Your task to perform on an android device: check the backup settings in the google photos Image 0: 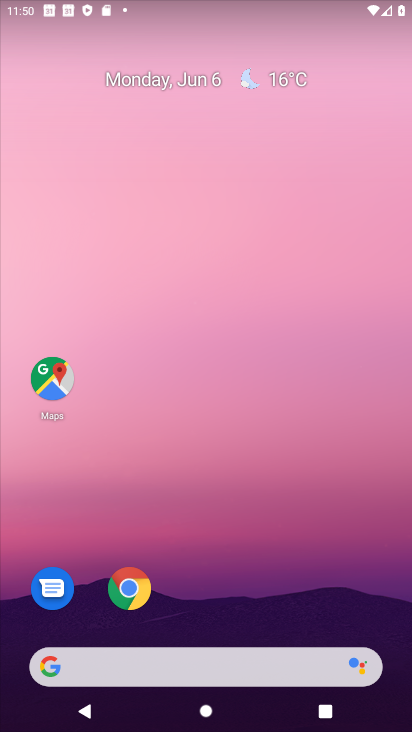
Step 0: drag from (257, 567) to (148, 24)
Your task to perform on an android device: check the backup settings in the google photos Image 1: 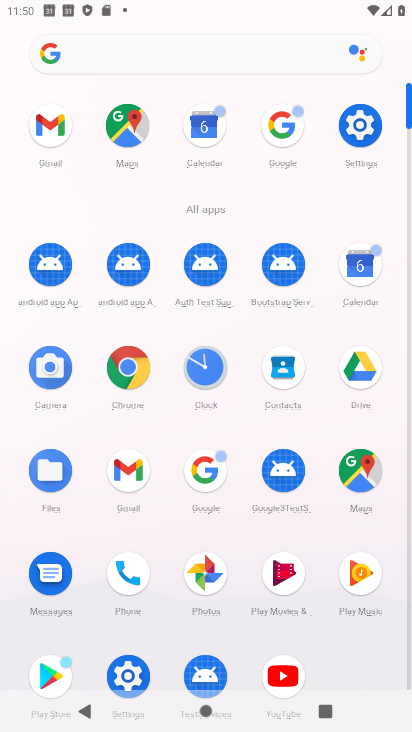
Step 1: click (205, 573)
Your task to perform on an android device: check the backup settings in the google photos Image 2: 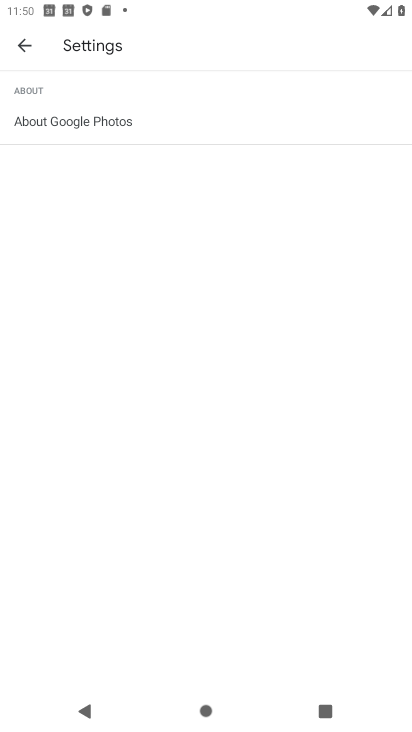
Step 2: click (23, 49)
Your task to perform on an android device: check the backup settings in the google photos Image 3: 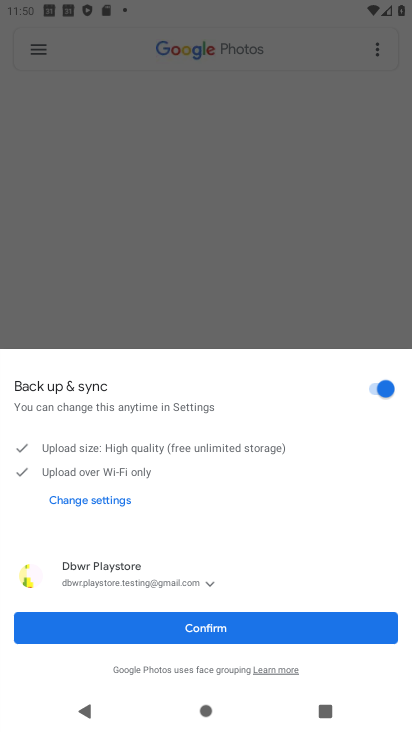
Step 3: click (206, 629)
Your task to perform on an android device: check the backup settings in the google photos Image 4: 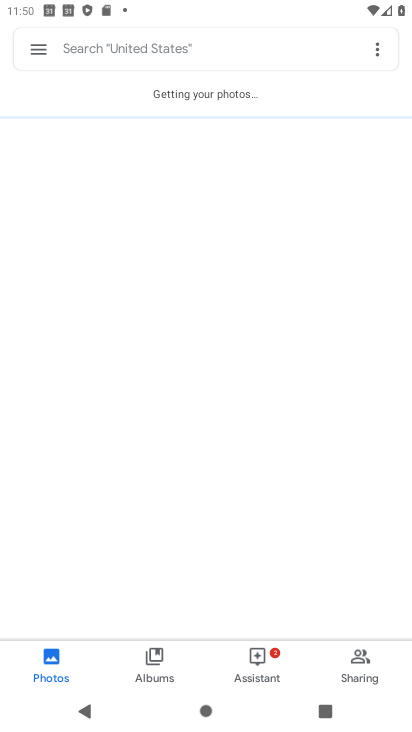
Step 4: click (39, 53)
Your task to perform on an android device: check the backup settings in the google photos Image 5: 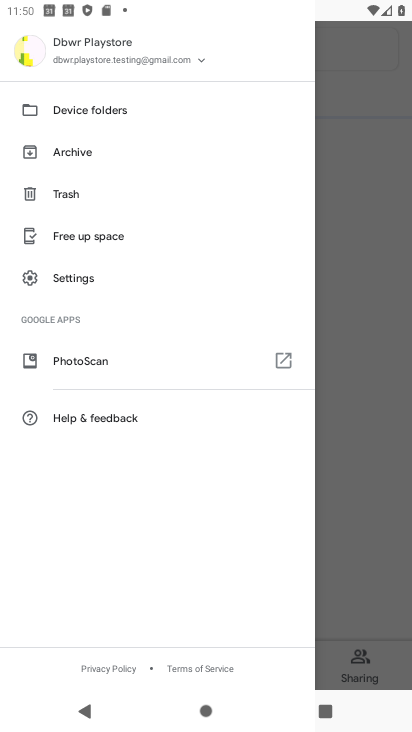
Step 5: click (71, 277)
Your task to perform on an android device: check the backup settings in the google photos Image 6: 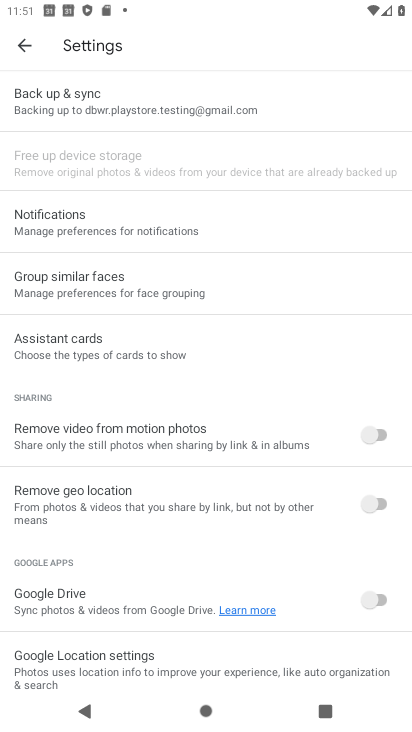
Step 6: click (127, 102)
Your task to perform on an android device: check the backup settings in the google photos Image 7: 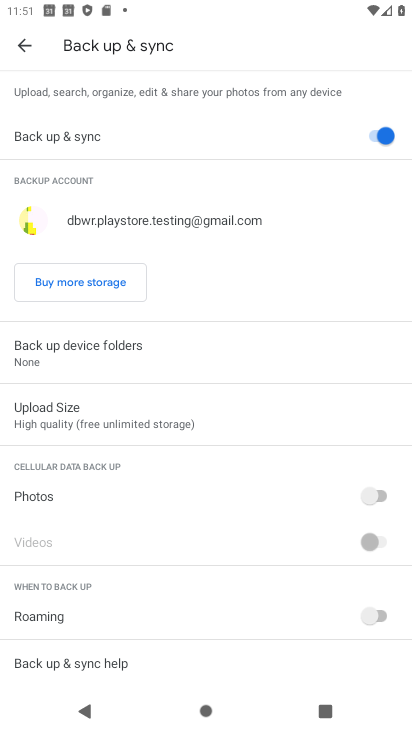
Step 7: task complete